Your task to perform on an android device: Open battery settings Image 0: 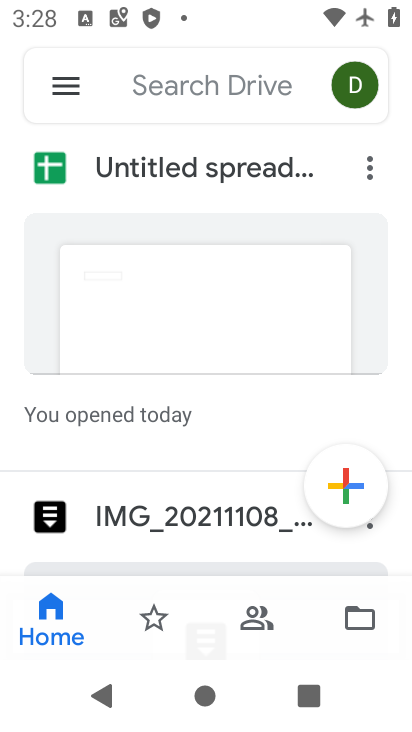
Step 0: press home button
Your task to perform on an android device: Open battery settings Image 1: 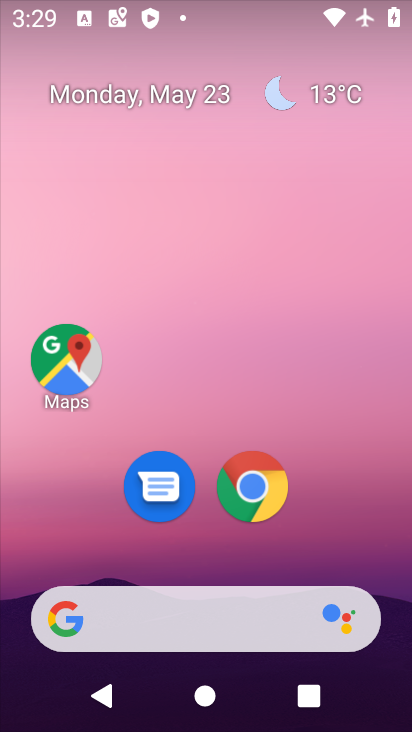
Step 1: drag from (393, 618) to (311, 50)
Your task to perform on an android device: Open battery settings Image 2: 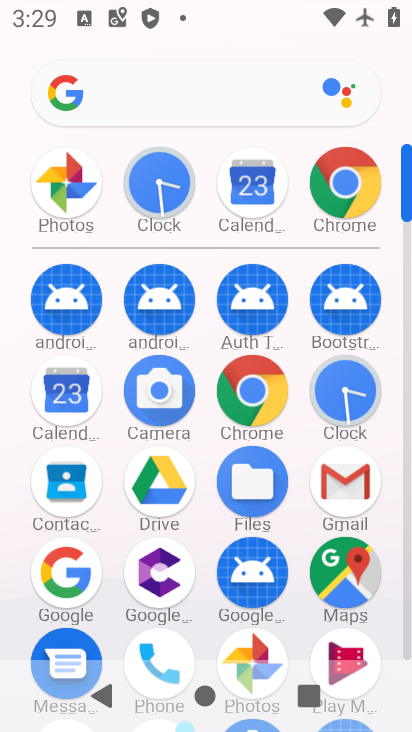
Step 2: click (408, 637)
Your task to perform on an android device: Open battery settings Image 3: 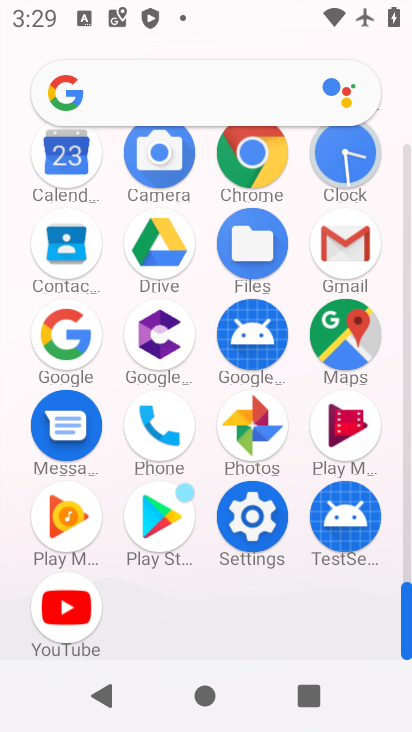
Step 3: click (251, 519)
Your task to perform on an android device: Open battery settings Image 4: 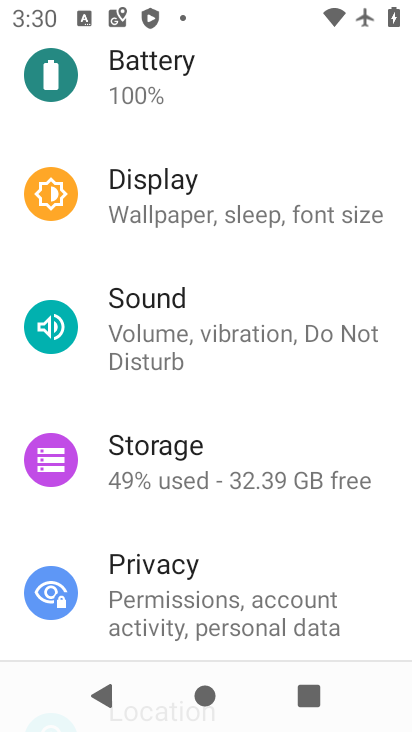
Step 4: drag from (313, 154) to (281, 446)
Your task to perform on an android device: Open battery settings Image 5: 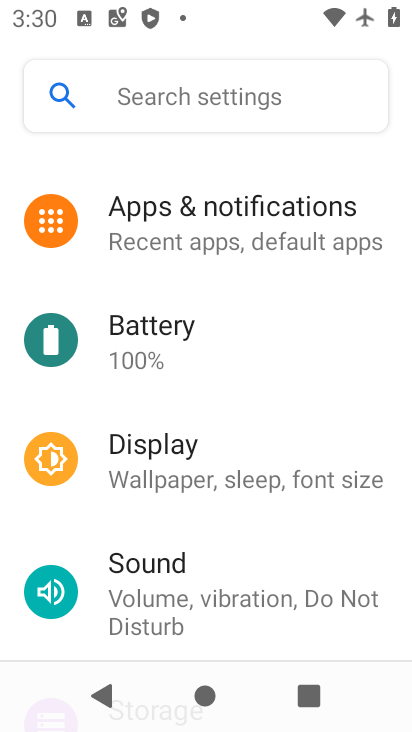
Step 5: click (127, 349)
Your task to perform on an android device: Open battery settings Image 6: 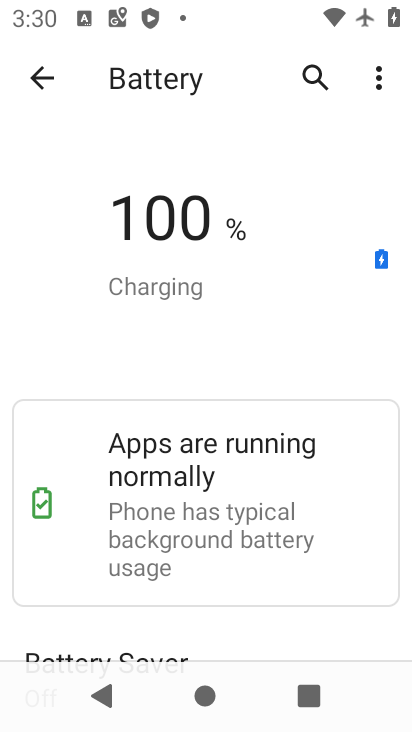
Step 6: task complete